Your task to perform on an android device: Open the map Image 0: 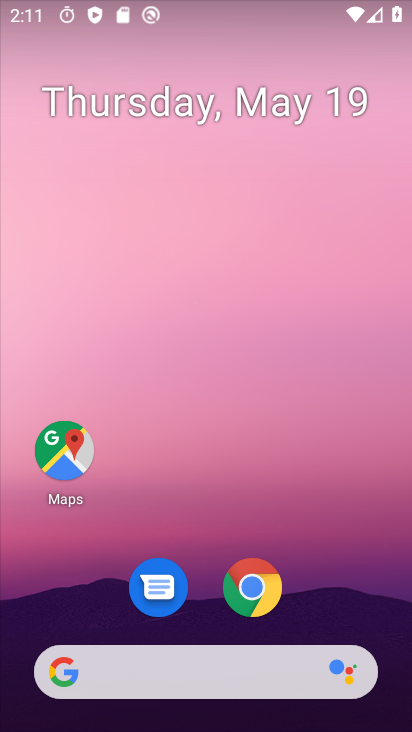
Step 0: drag from (220, 725) to (217, 125)
Your task to perform on an android device: Open the map Image 1: 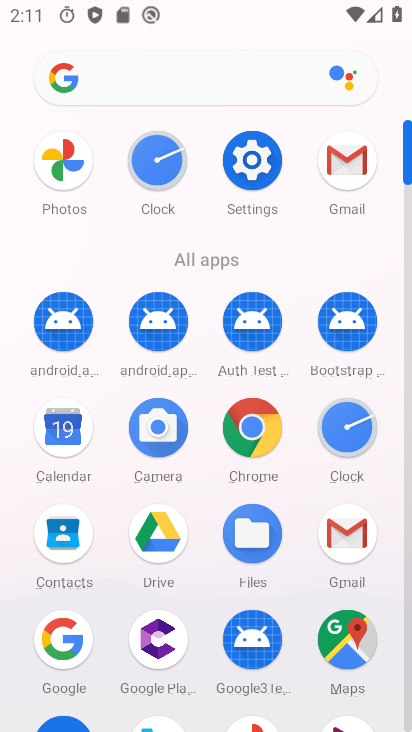
Step 1: click (347, 646)
Your task to perform on an android device: Open the map Image 2: 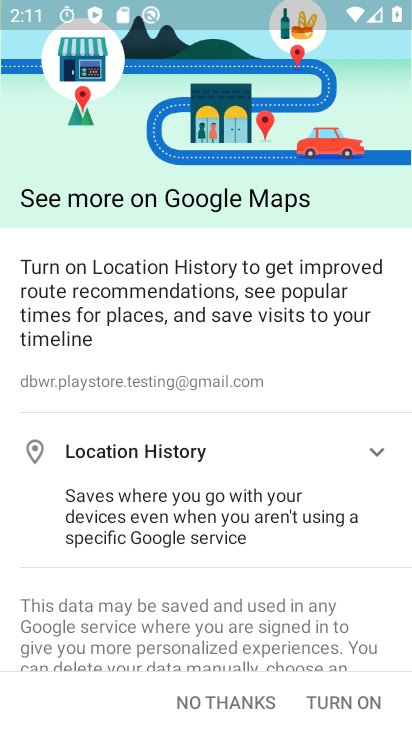
Step 2: click (239, 700)
Your task to perform on an android device: Open the map Image 3: 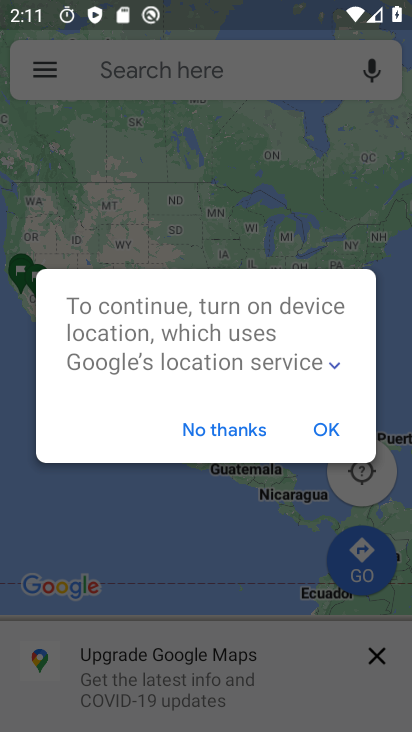
Step 3: click (323, 428)
Your task to perform on an android device: Open the map Image 4: 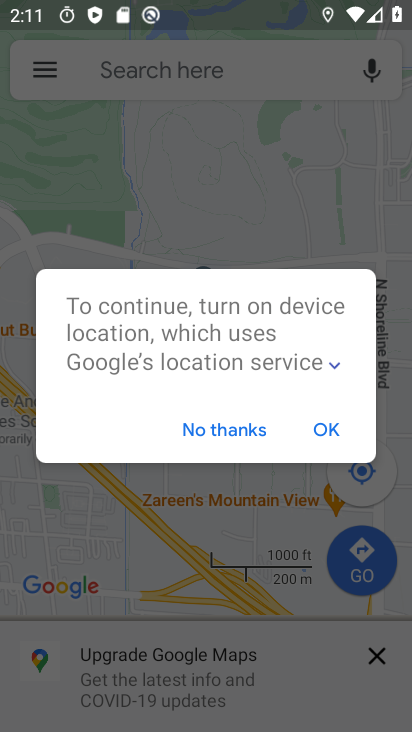
Step 4: click (226, 427)
Your task to perform on an android device: Open the map Image 5: 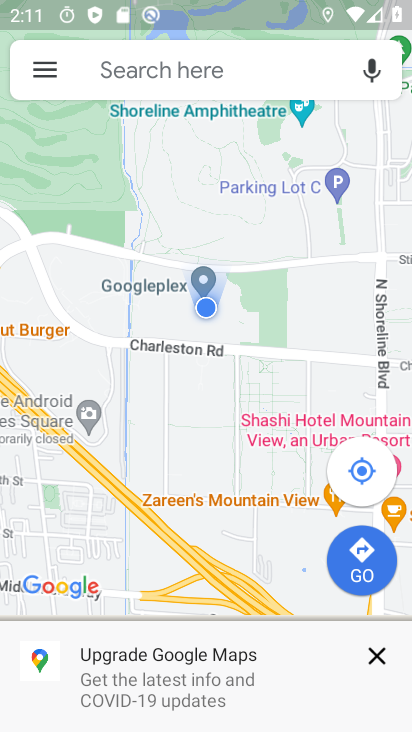
Step 5: task complete